Your task to perform on an android device: Open Google Chrome and click the shortcut for Amazon.com Image 0: 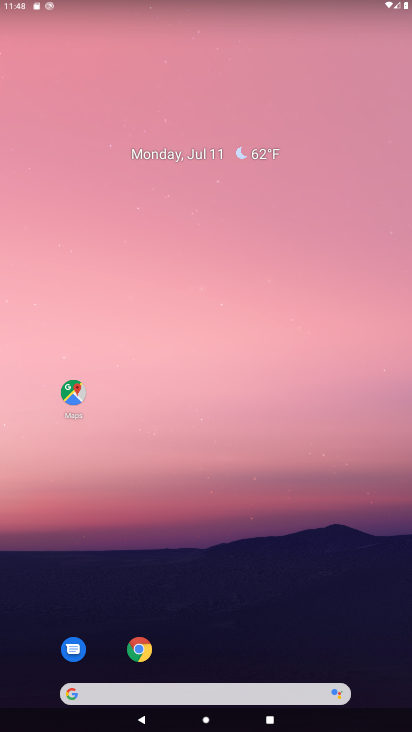
Step 0: click (142, 652)
Your task to perform on an android device: Open Google Chrome and click the shortcut for Amazon.com Image 1: 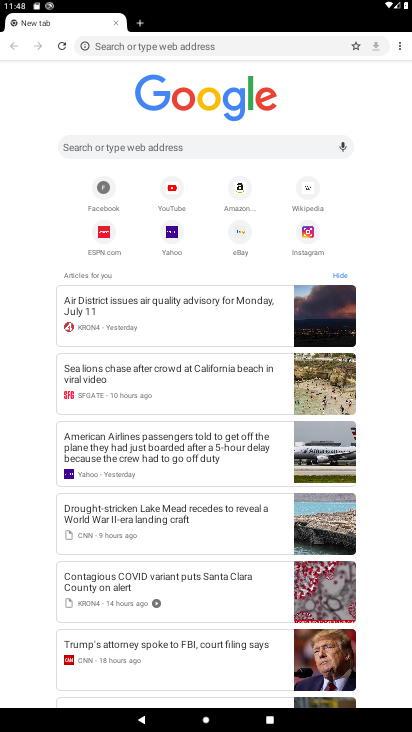
Step 1: click (236, 192)
Your task to perform on an android device: Open Google Chrome and click the shortcut for Amazon.com Image 2: 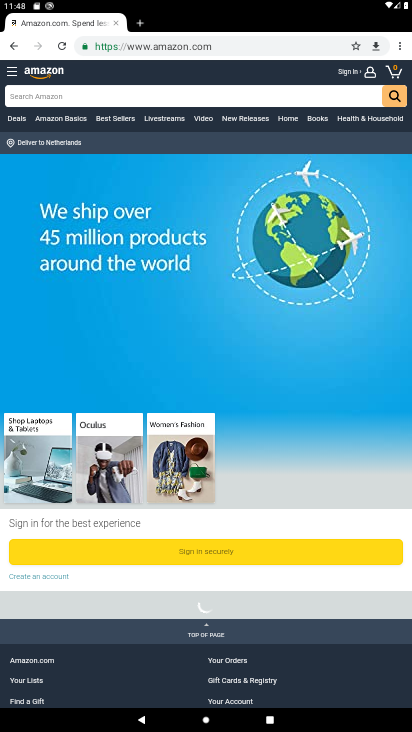
Step 2: task complete